Your task to perform on an android device: Go to Reddit.com Image 0: 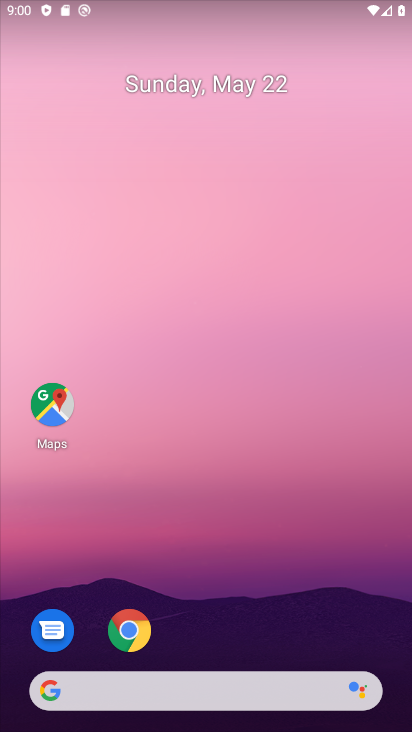
Step 0: click (137, 628)
Your task to perform on an android device: Go to Reddit.com Image 1: 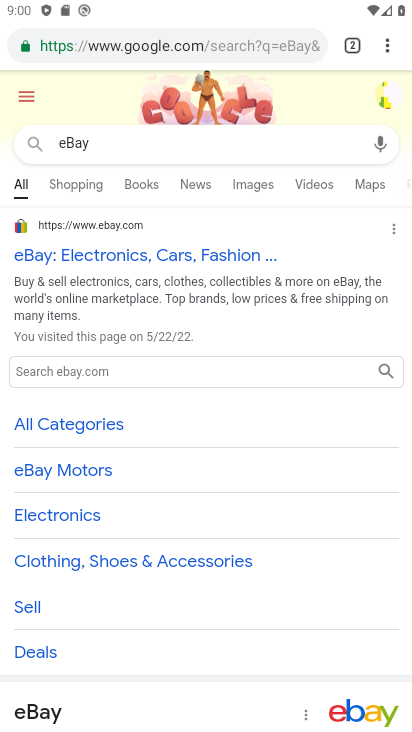
Step 1: click (389, 43)
Your task to perform on an android device: Go to Reddit.com Image 2: 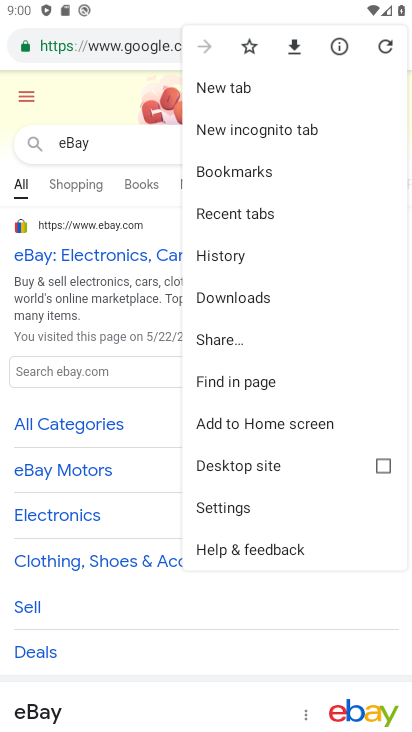
Step 2: click (64, 115)
Your task to perform on an android device: Go to Reddit.com Image 3: 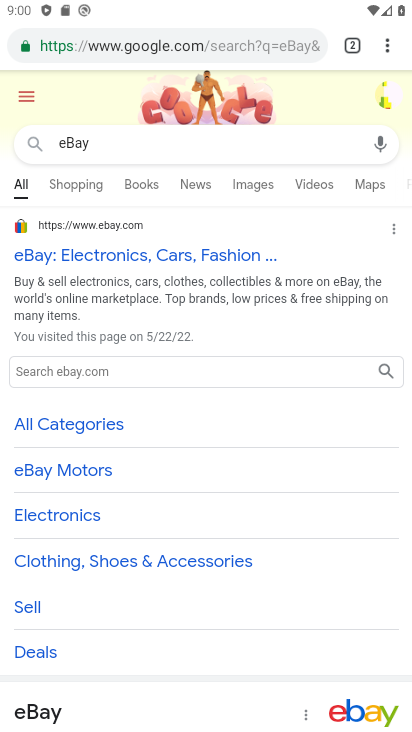
Step 3: click (317, 45)
Your task to perform on an android device: Go to Reddit.com Image 4: 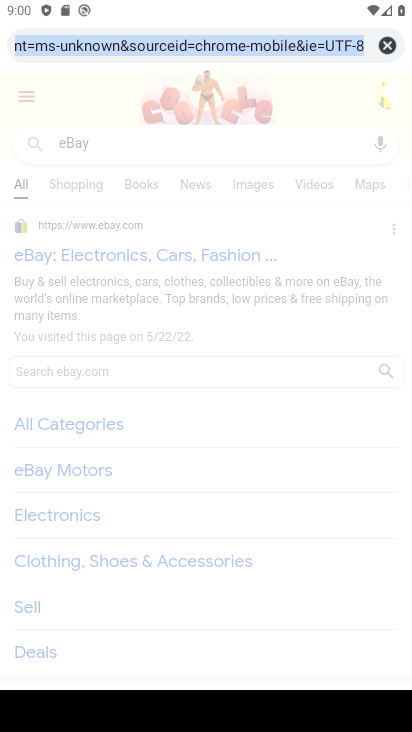
Step 4: click (380, 42)
Your task to perform on an android device: Go to Reddit.com Image 5: 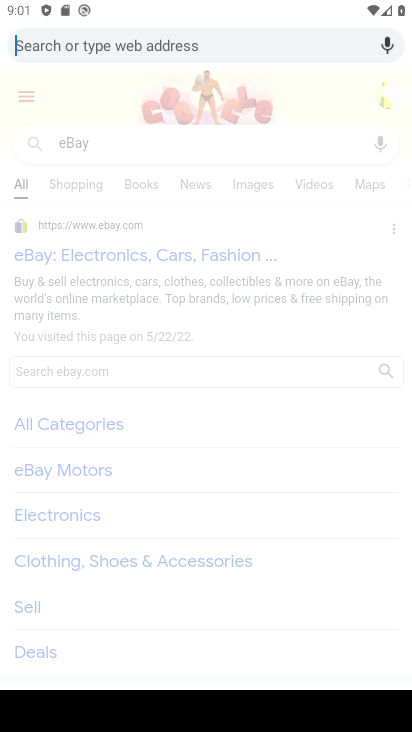
Step 5: type " Reddit.com"
Your task to perform on an android device: Go to Reddit.com Image 6: 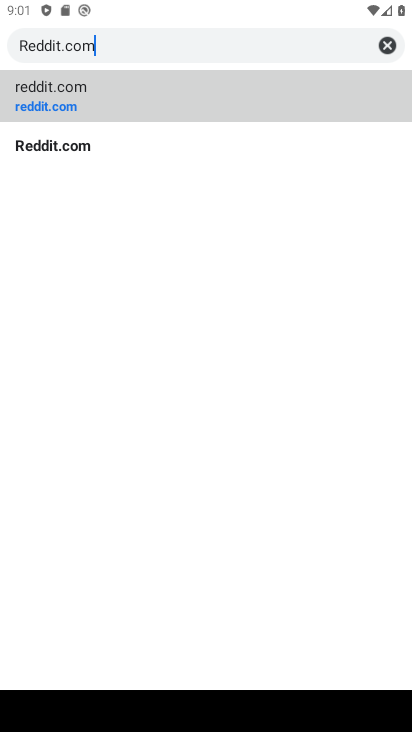
Step 6: click (32, 140)
Your task to perform on an android device: Go to Reddit.com Image 7: 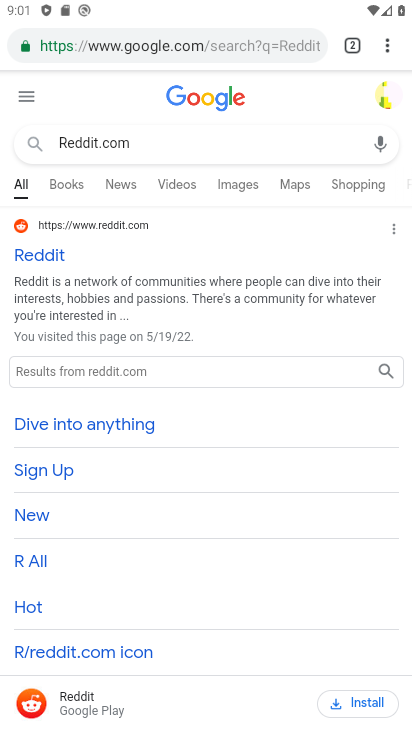
Step 7: task complete